Your task to perform on an android device: Open internet settings Image 0: 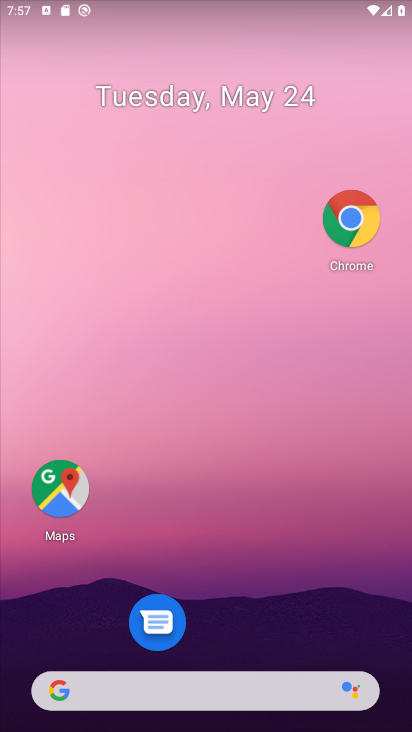
Step 0: drag from (253, 717) to (211, 1)
Your task to perform on an android device: Open internet settings Image 1: 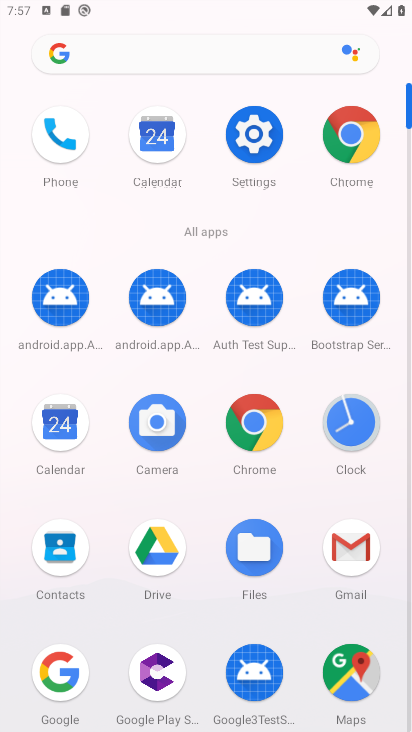
Step 1: click (248, 149)
Your task to perform on an android device: Open internet settings Image 2: 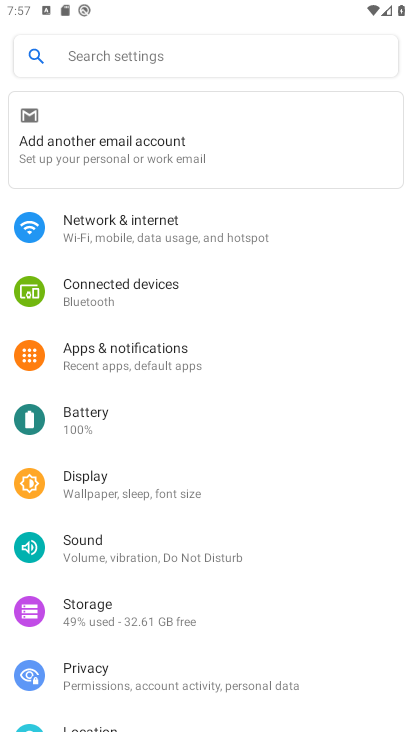
Step 2: click (200, 230)
Your task to perform on an android device: Open internet settings Image 3: 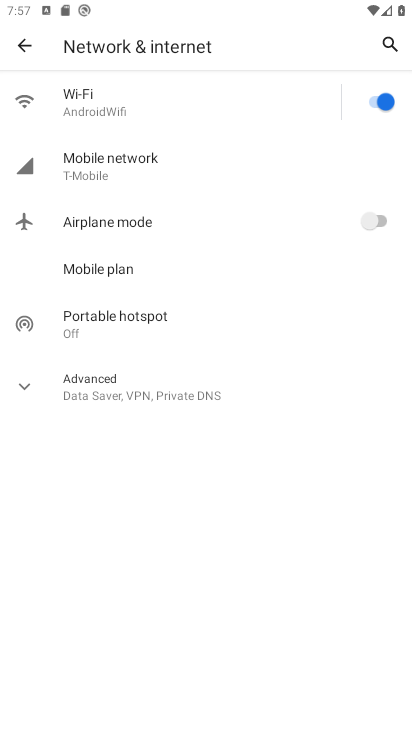
Step 3: task complete